Your task to perform on an android device: Go to calendar. Show me events next week Image 0: 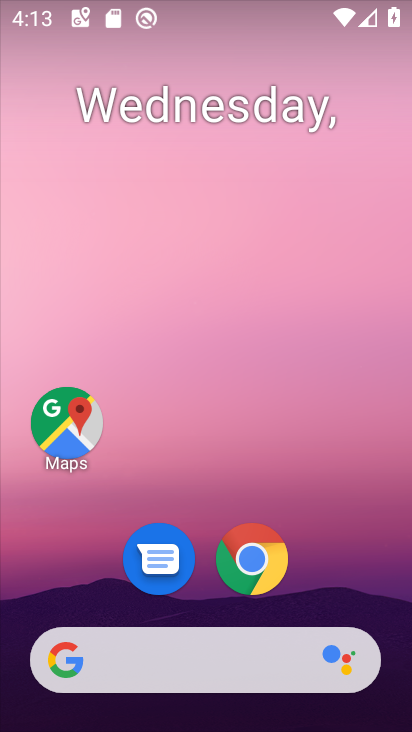
Step 0: drag from (350, 561) to (228, 103)
Your task to perform on an android device: Go to calendar. Show me events next week Image 1: 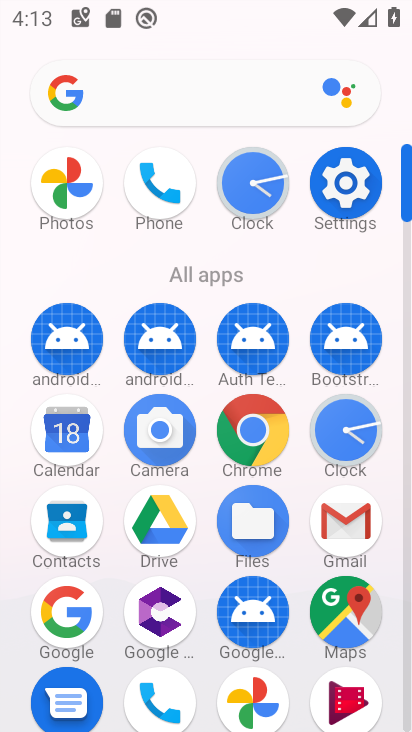
Step 1: click (55, 437)
Your task to perform on an android device: Go to calendar. Show me events next week Image 2: 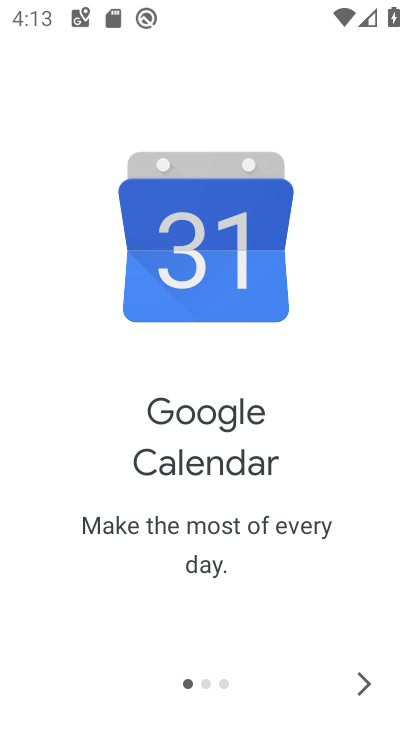
Step 2: click (361, 684)
Your task to perform on an android device: Go to calendar. Show me events next week Image 3: 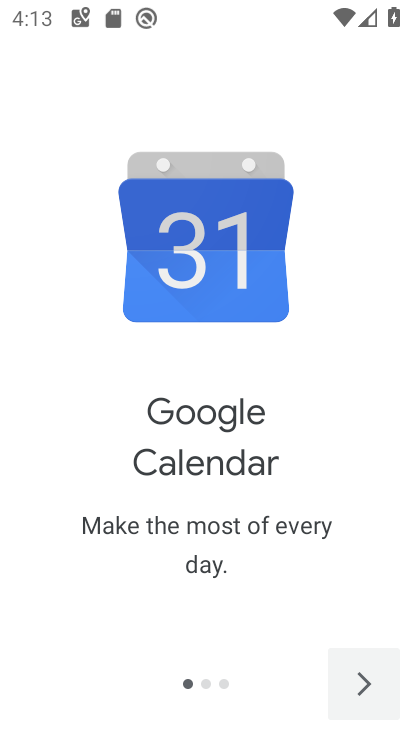
Step 3: click (356, 679)
Your task to perform on an android device: Go to calendar. Show me events next week Image 4: 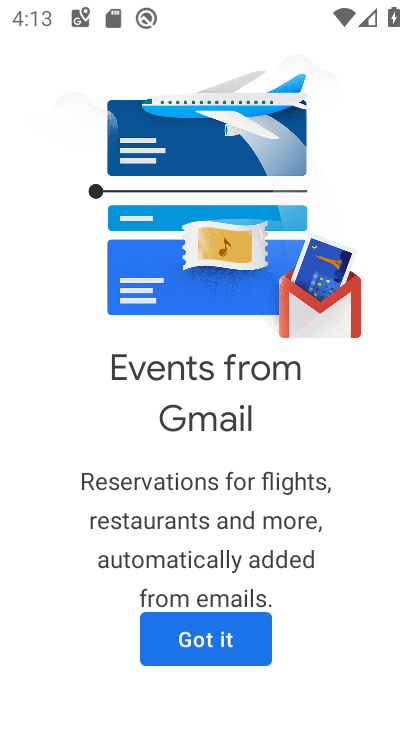
Step 4: click (234, 645)
Your task to perform on an android device: Go to calendar. Show me events next week Image 5: 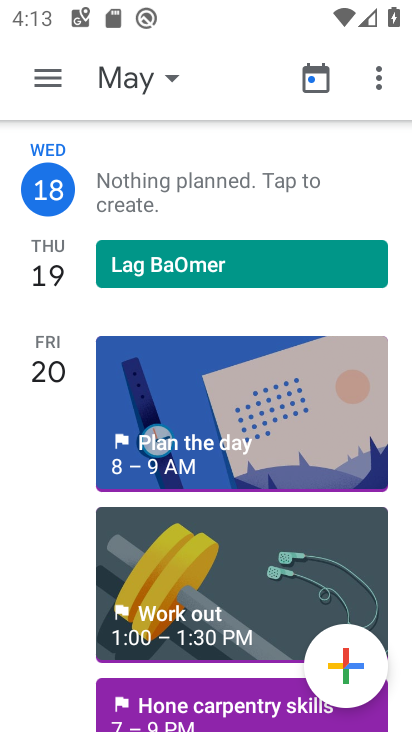
Step 5: click (45, 92)
Your task to perform on an android device: Go to calendar. Show me events next week Image 6: 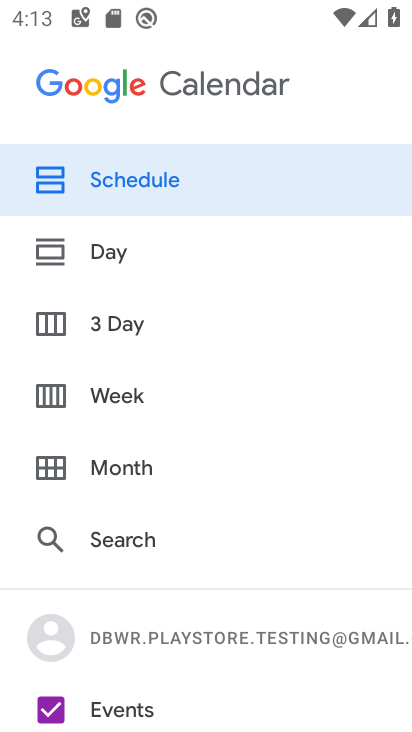
Step 6: click (106, 388)
Your task to perform on an android device: Go to calendar. Show me events next week Image 7: 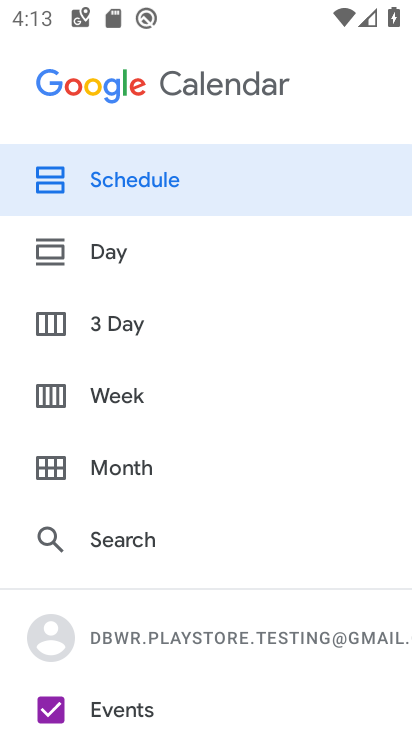
Step 7: click (127, 395)
Your task to perform on an android device: Go to calendar. Show me events next week Image 8: 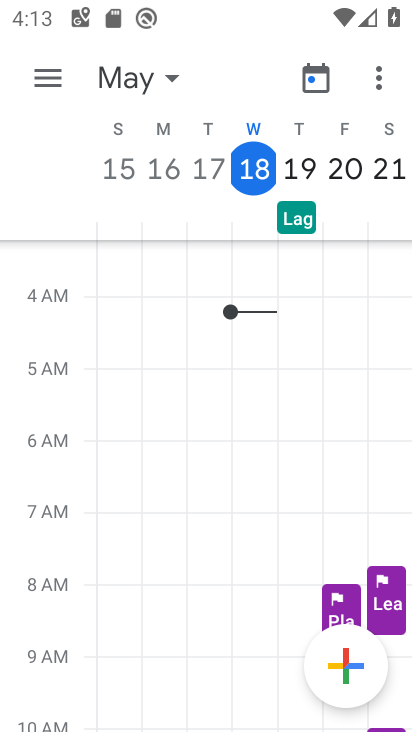
Step 8: click (164, 73)
Your task to perform on an android device: Go to calendar. Show me events next week Image 9: 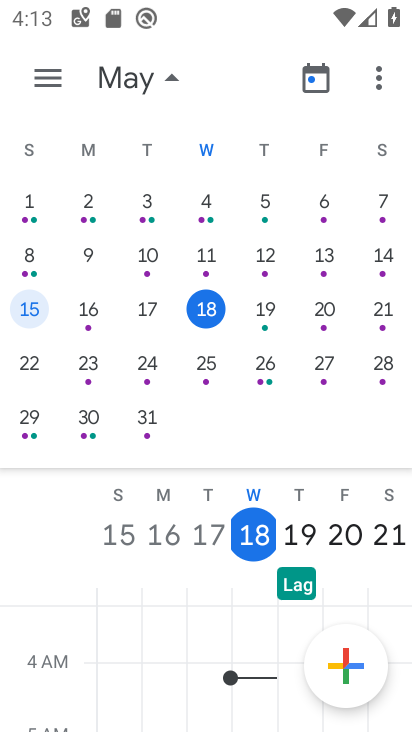
Step 9: click (39, 373)
Your task to perform on an android device: Go to calendar. Show me events next week Image 10: 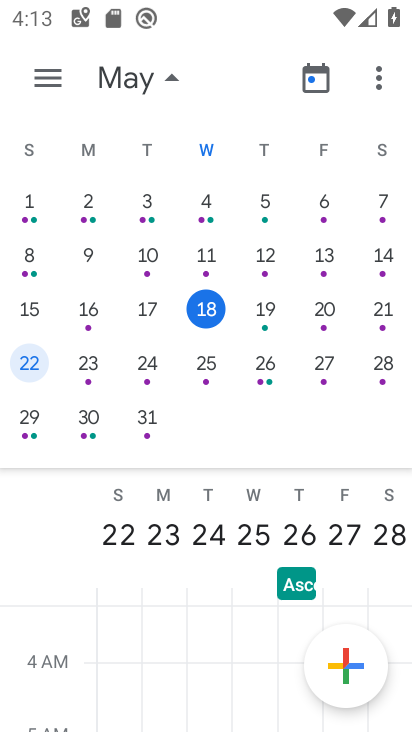
Step 10: task complete